Your task to perform on an android device: see creations saved in the google photos Image 0: 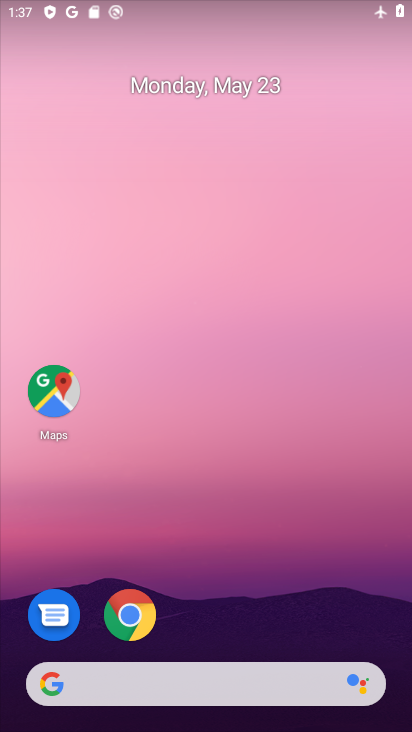
Step 0: click (187, 17)
Your task to perform on an android device: see creations saved in the google photos Image 1: 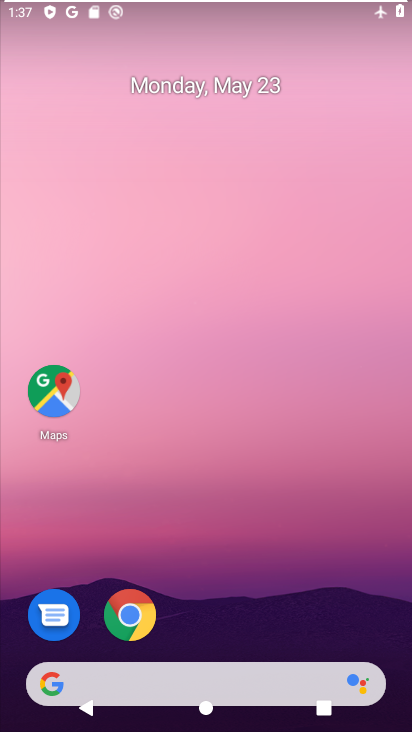
Step 1: click (187, 17)
Your task to perform on an android device: see creations saved in the google photos Image 2: 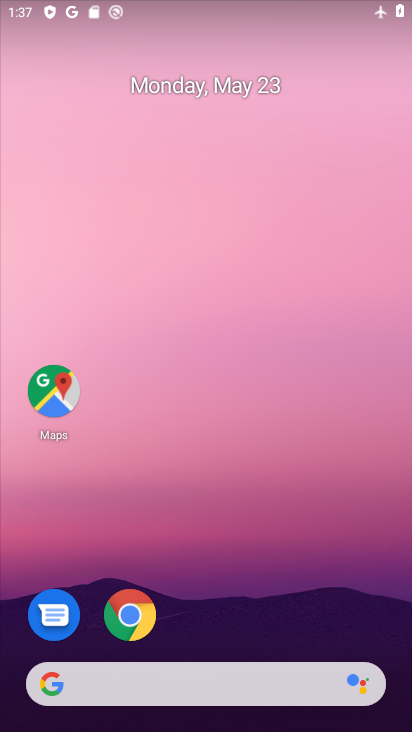
Step 2: drag from (230, 661) to (155, 158)
Your task to perform on an android device: see creations saved in the google photos Image 3: 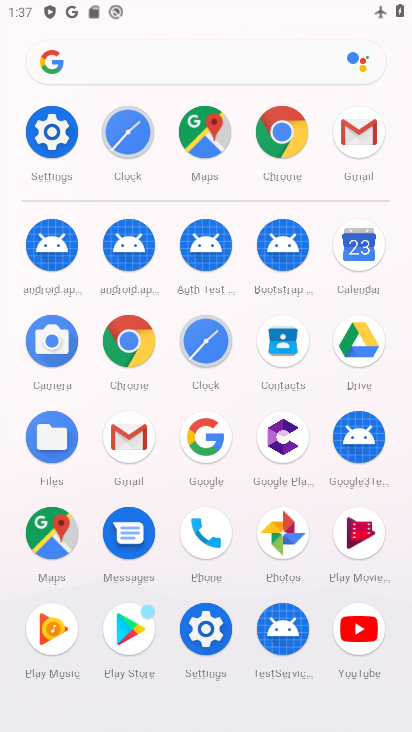
Step 3: click (277, 541)
Your task to perform on an android device: see creations saved in the google photos Image 4: 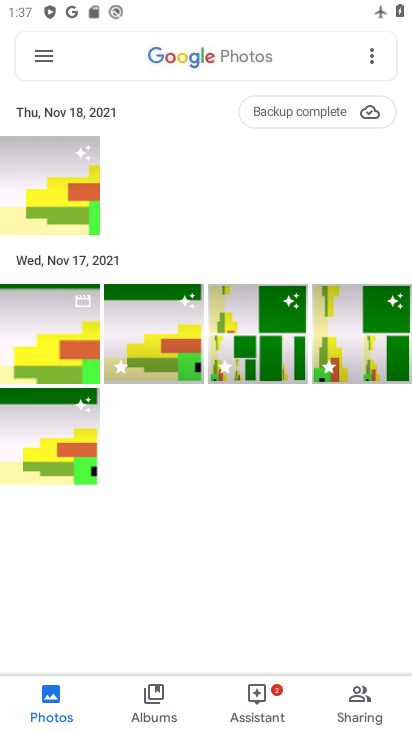
Step 4: click (136, 54)
Your task to perform on an android device: see creations saved in the google photos Image 5: 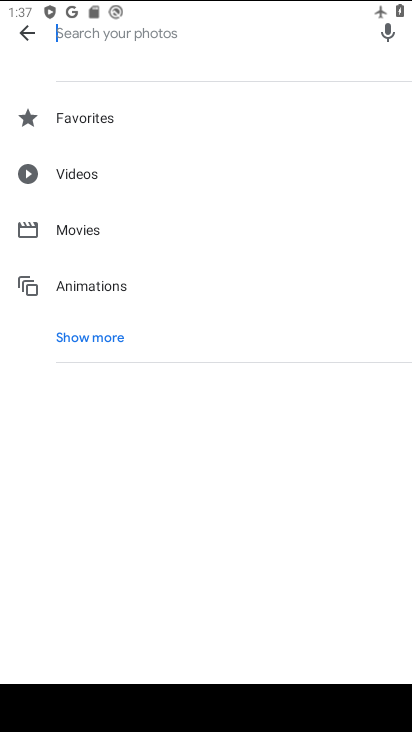
Step 5: click (95, 329)
Your task to perform on an android device: see creations saved in the google photos Image 6: 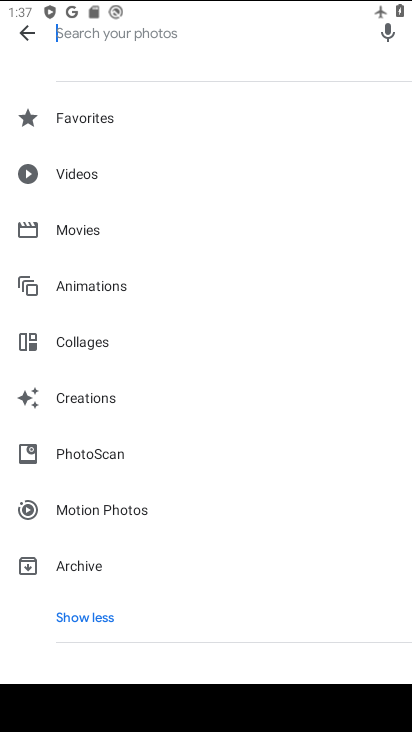
Step 6: click (88, 403)
Your task to perform on an android device: see creations saved in the google photos Image 7: 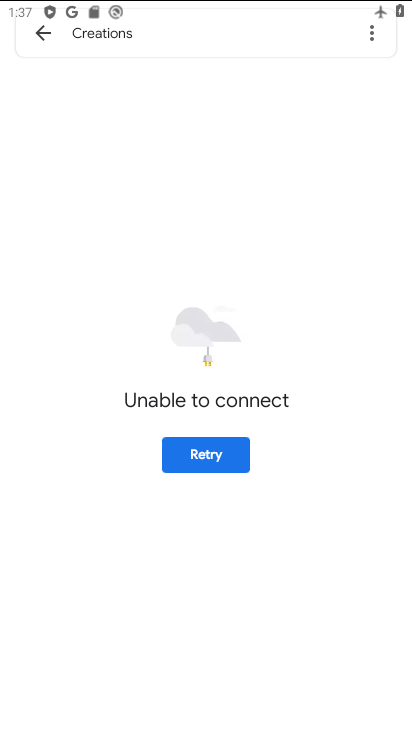
Step 7: task complete